Your task to perform on an android device: turn notification dots on Image 0: 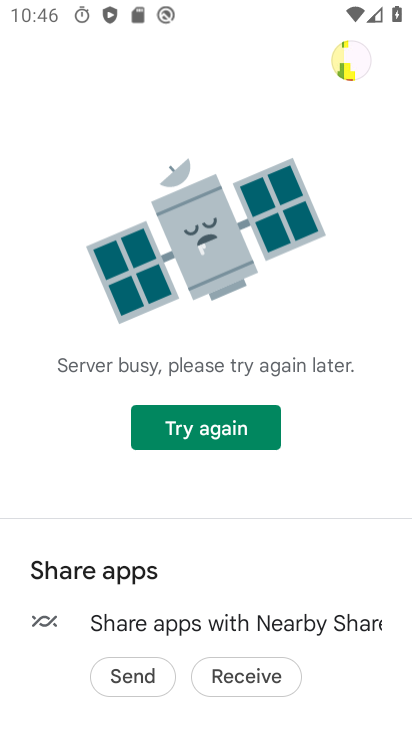
Step 0: press back button
Your task to perform on an android device: turn notification dots on Image 1: 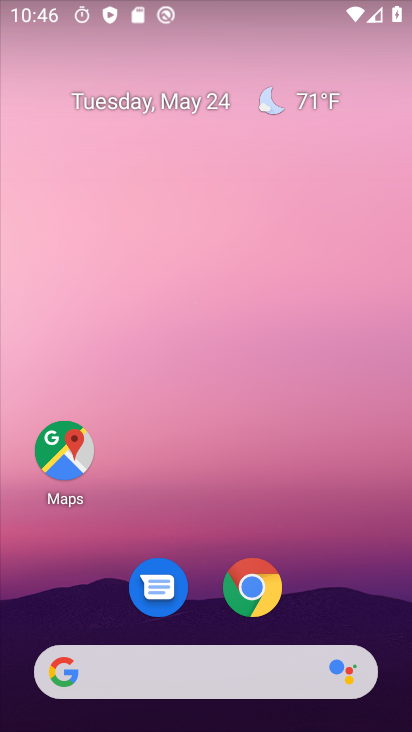
Step 1: drag from (312, 703) to (226, 156)
Your task to perform on an android device: turn notification dots on Image 2: 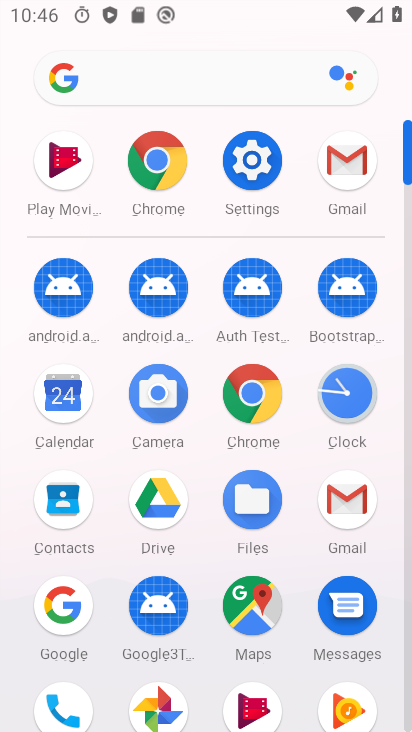
Step 2: click (243, 151)
Your task to perform on an android device: turn notification dots on Image 3: 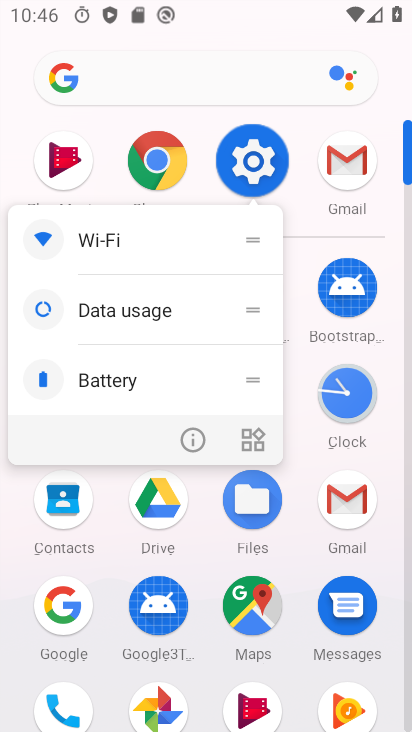
Step 3: click (251, 154)
Your task to perform on an android device: turn notification dots on Image 4: 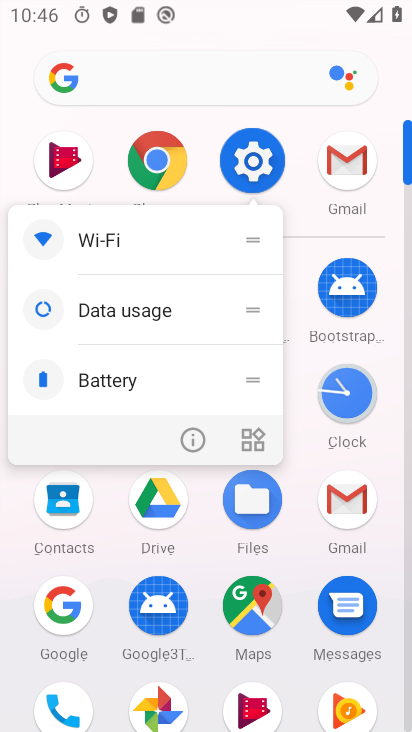
Step 4: click (253, 153)
Your task to perform on an android device: turn notification dots on Image 5: 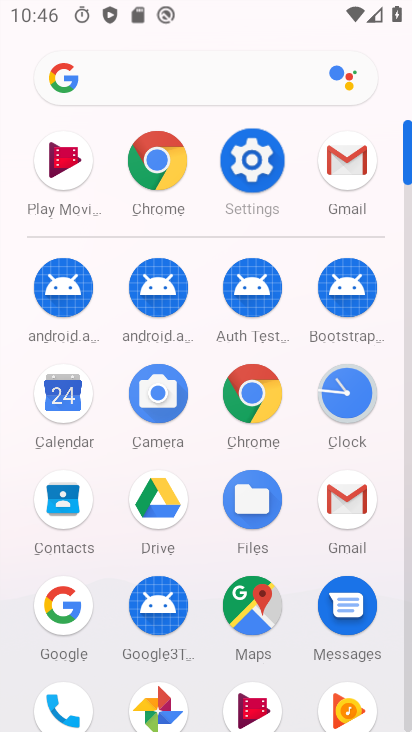
Step 5: click (257, 154)
Your task to perform on an android device: turn notification dots on Image 6: 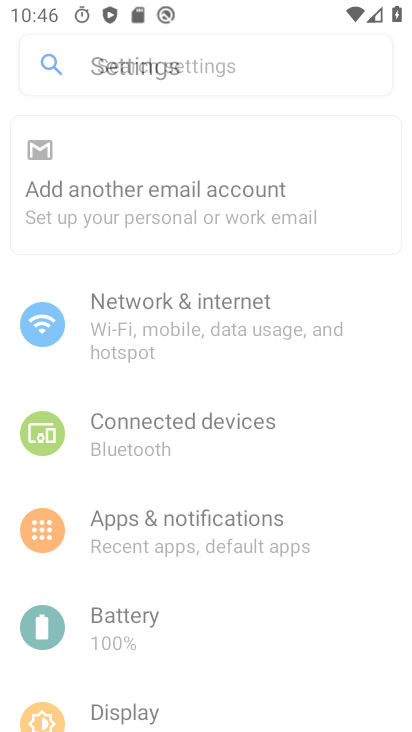
Step 6: click (257, 154)
Your task to perform on an android device: turn notification dots on Image 7: 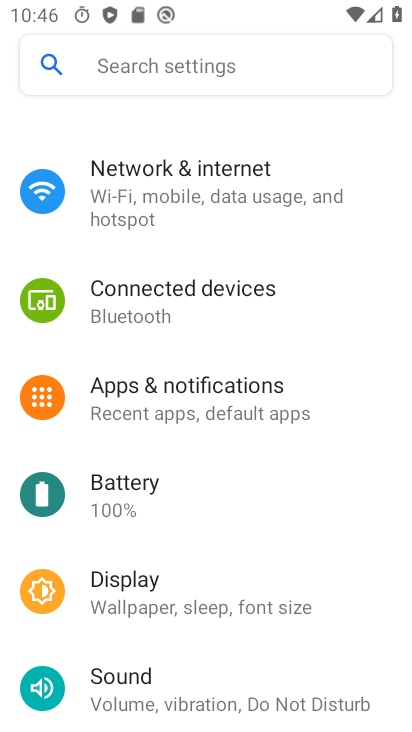
Step 7: click (257, 154)
Your task to perform on an android device: turn notification dots on Image 8: 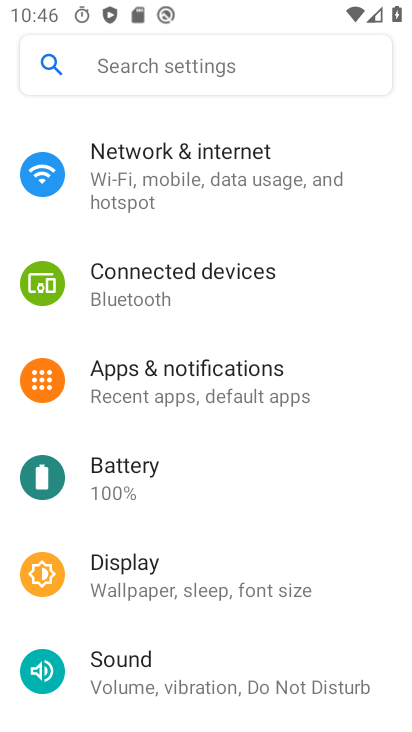
Step 8: click (257, 154)
Your task to perform on an android device: turn notification dots on Image 9: 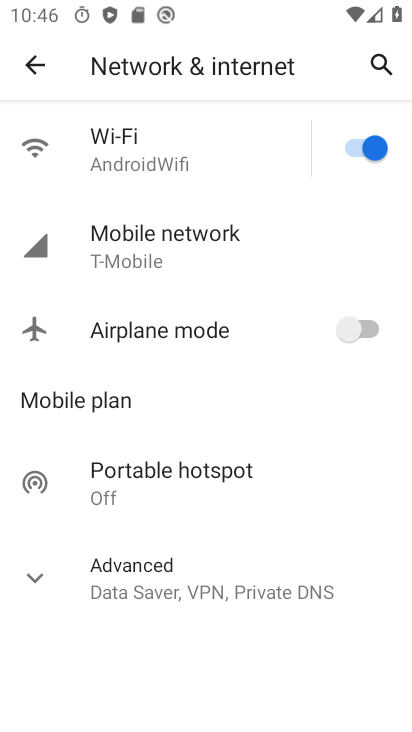
Step 9: click (30, 70)
Your task to perform on an android device: turn notification dots on Image 10: 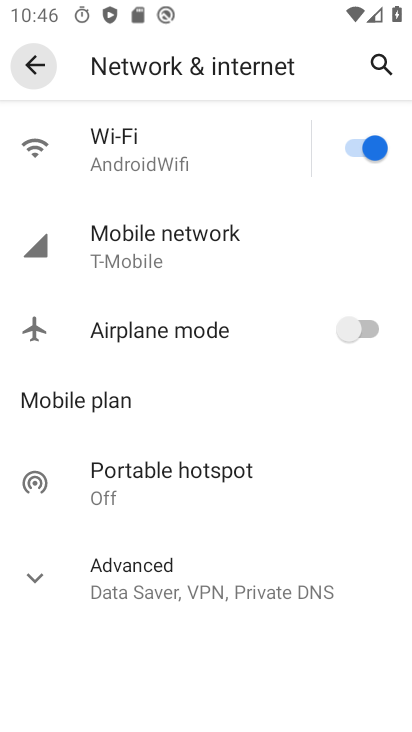
Step 10: click (29, 69)
Your task to perform on an android device: turn notification dots on Image 11: 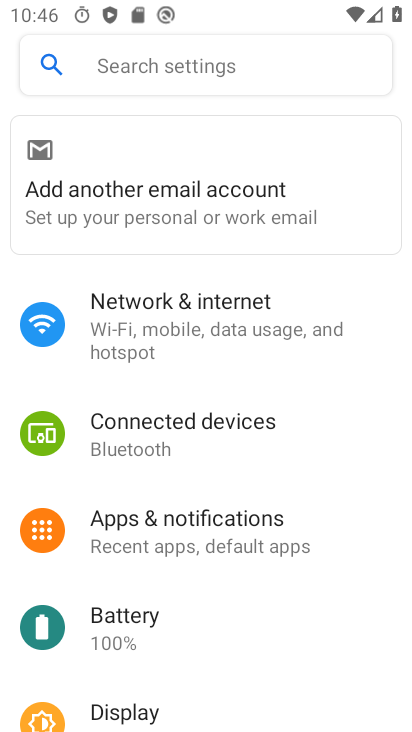
Step 11: drag from (224, 565) to (245, 252)
Your task to perform on an android device: turn notification dots on Image 12: 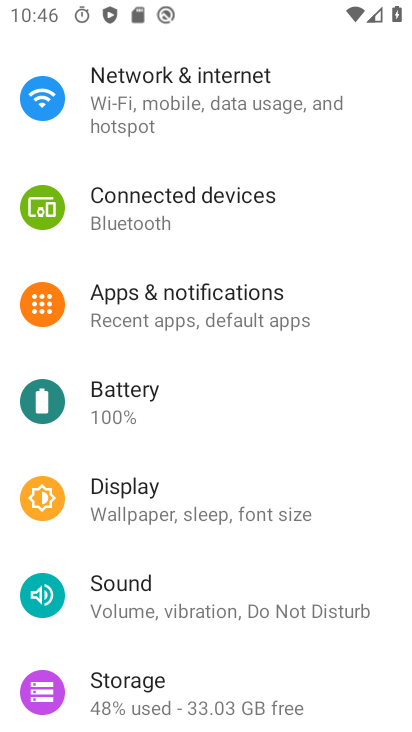
Step 12: click (166, 312)
Your task to perform on an android device: turn notification dots on Image 13: 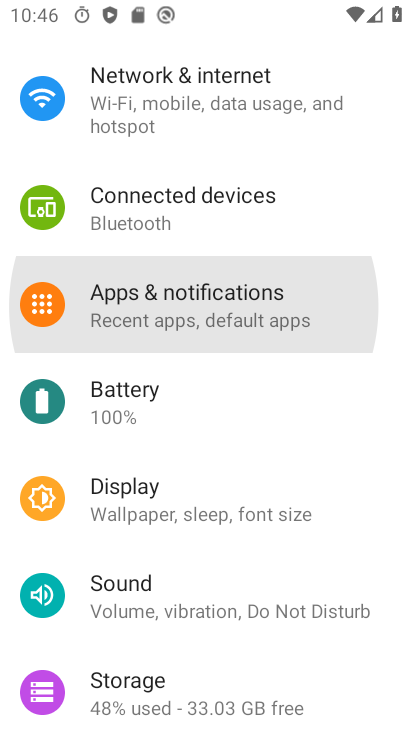
Step 13: click (167, 310)
Your task to perform on an android device: turn notification dots on Image 14: 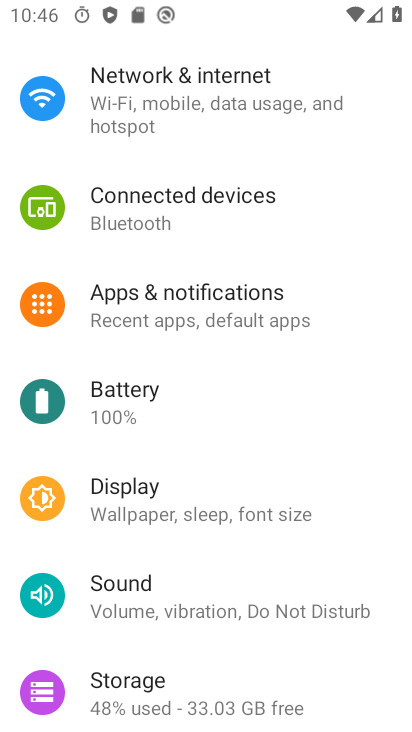
Step 14: click (173, 308)
Your task to perform on an android device: turn notification dots on Image 15: 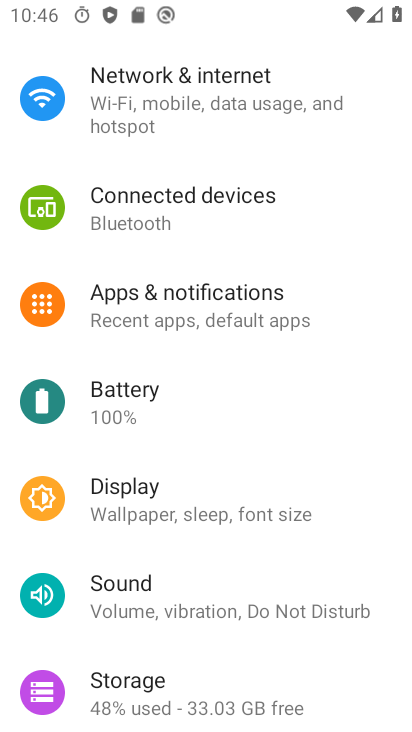
Step 15: click (173, 307)
Your task to perform on an android device: turn notification dots on Image 16: 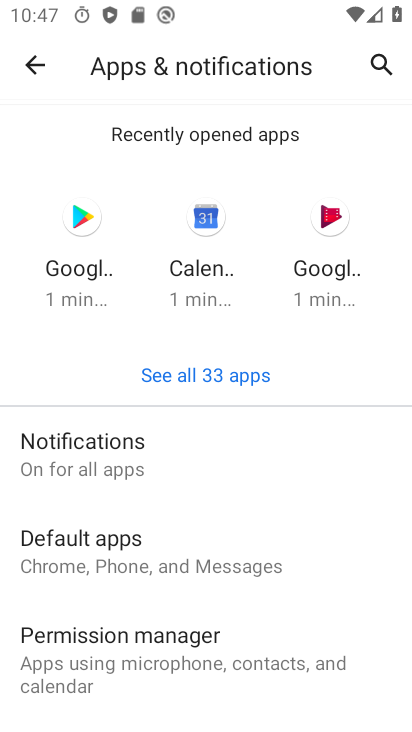
Step 16: click (68, 450)
Your task to perform on an android device: turn notification dots on Image 17: 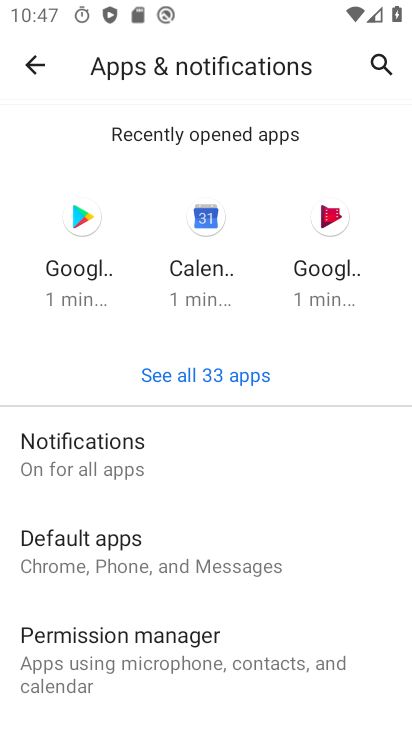
Step 17: click (68, 450)
Your task to perform on an android device: turn notification dots on Image 18: 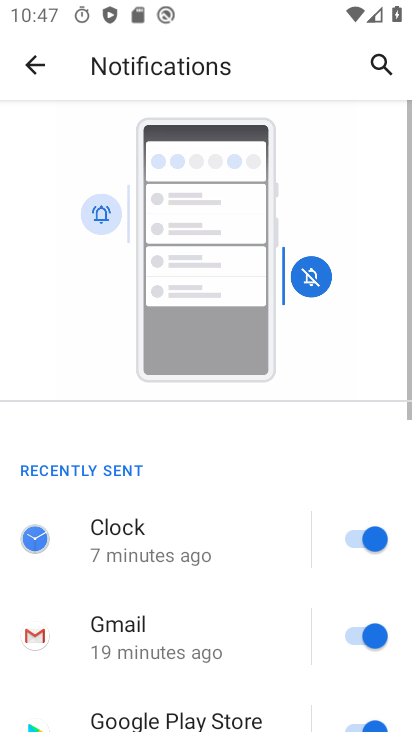
Step 18: click (95, 462)
Your task to perform on an android device: turn notification dots on Image 19: 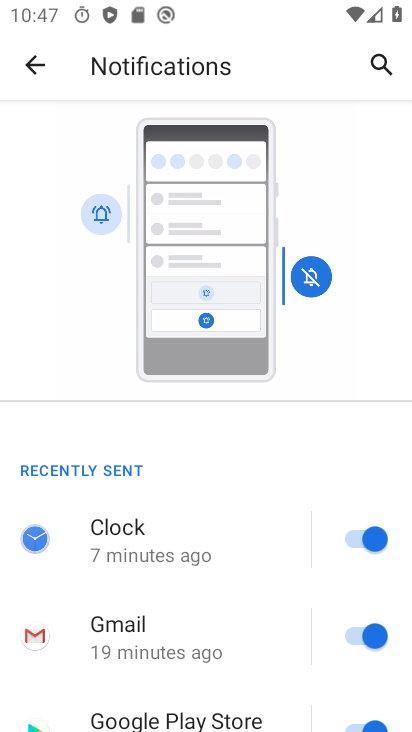
Step 19: drag from (162, 501) to (182, 226)
Your task to perform on an android device: turn notification dots on Image 20: 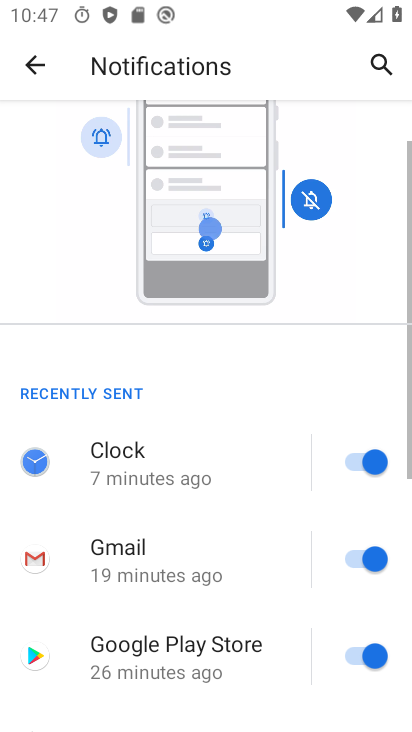
Step 20: drag from (229, 467) to (224, 175)
Your task to perform on an android device: turn notification dots on Image 21: 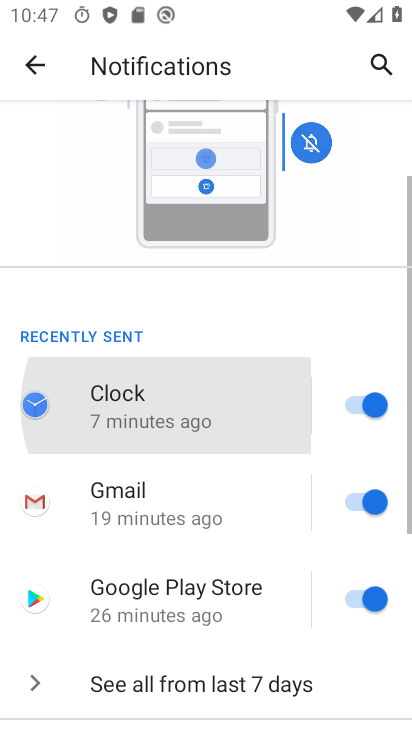
Step 21: drag from (140, 509) to (156, 196)
Your task to perform on an android device: turn notification dots on Image 22: 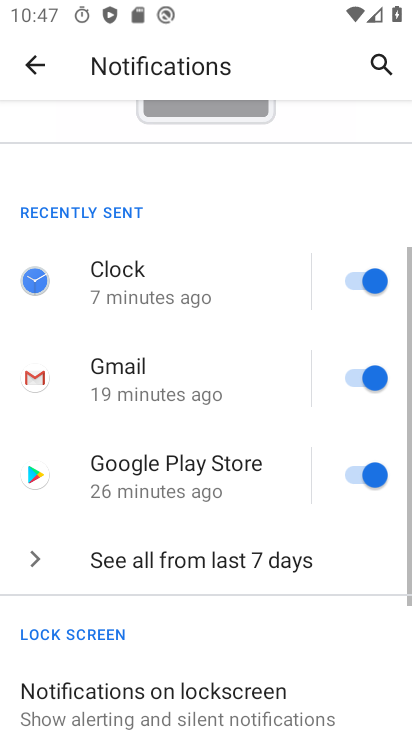
Step 22: drag from (199, 528) to (198, 145)
Your task to perform on an android device: turn notification dots on Image 23: 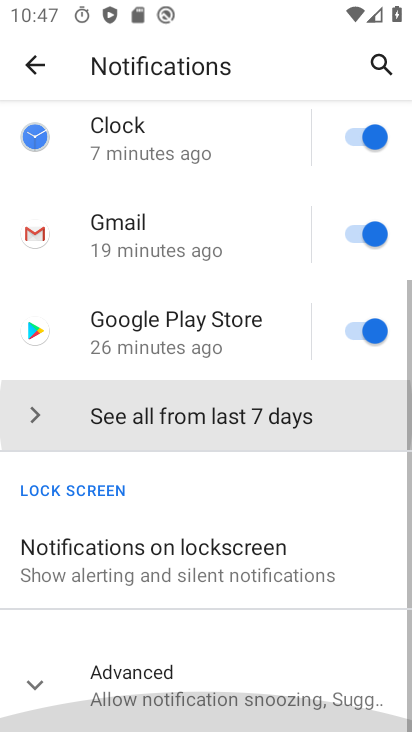
Step 23: drag from (185, 492) to (214, 65)
Your task to perform on an android device: turn notification dots on Image 24: 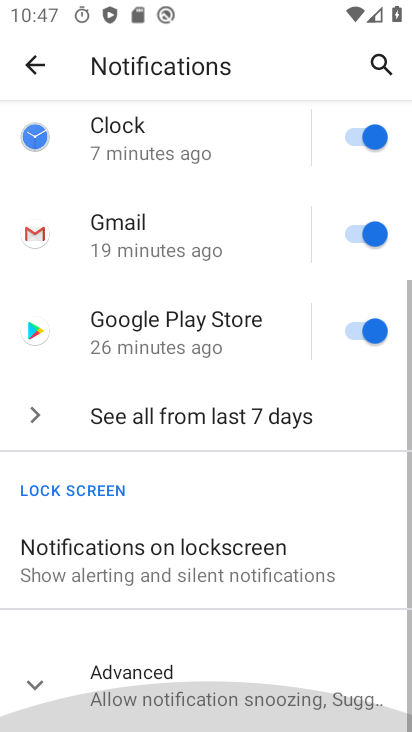
Step 24: drag from (213, 568) to (238, 124)
Your task to perform on an android device: turn notification dots on Image 25: 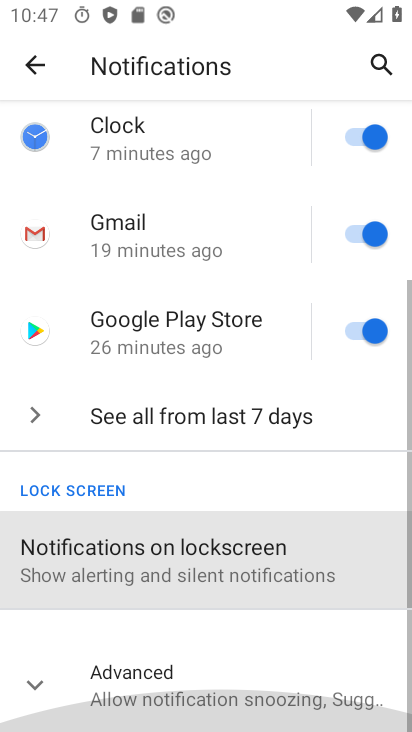
Step 25: drag from (238, 557) to (274, 178)
Your task to perform on an android device: turn notification dots on Image 26: 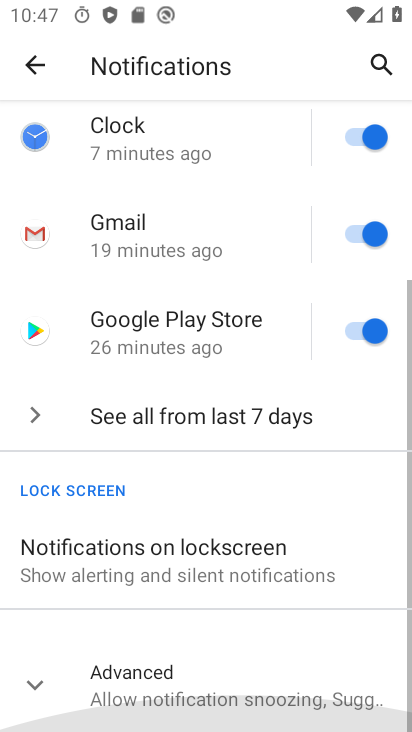
Step 26: drag from (278, 491) to (278, 97)
Your task to perform on an android device: turn notification dots on Image 27: 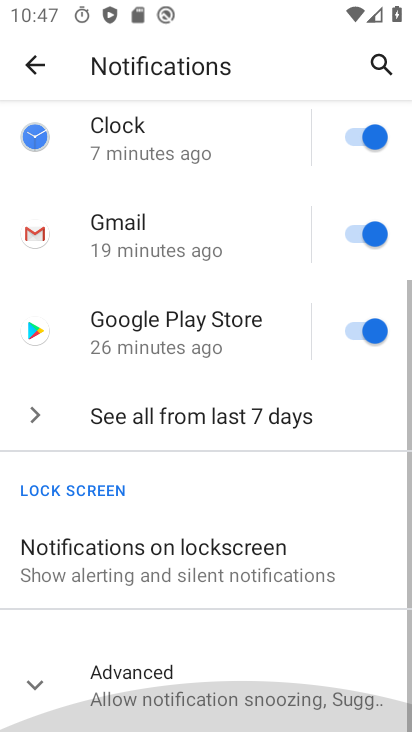
Step 27: drag from (255, 543) to (243, 165)
Your task to perform on an android device: turn notification dots on Image 28: 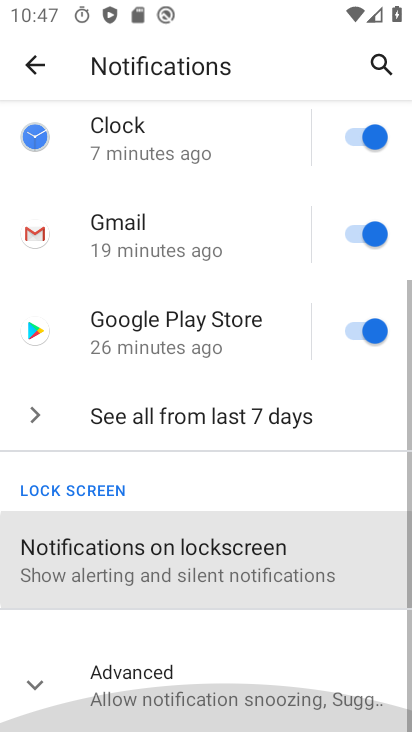
Step 28: drag from (234, 453) to (229, 80)
Your task to perform on an android device: turn notification dots on Image 29: 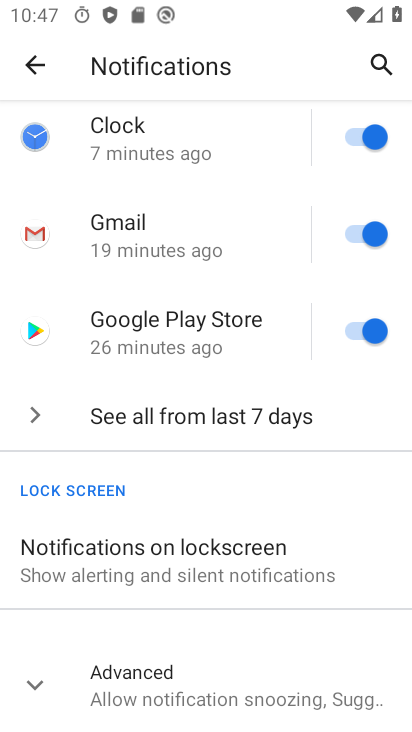
Step 29: click (149, 677)
Your task to perform on an android device: turn notification dots on Image 30: 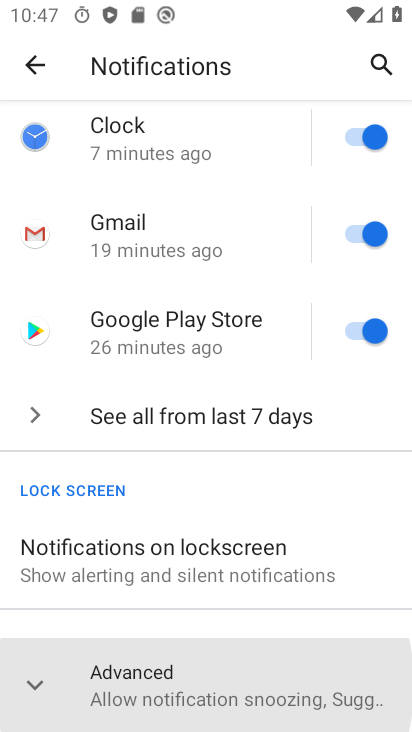
Step 30: click (149, 677)
Your task to perform on an android device: turn notification dots on Image 31: 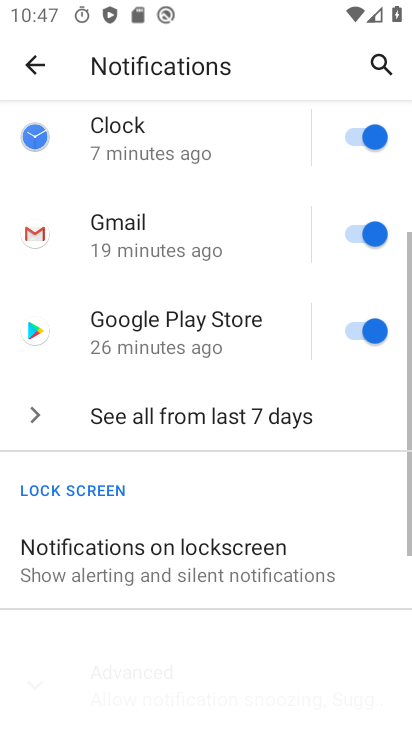
Step 31: click (149, 676)
Your task to perform on an android device: turn notification dots on Image 32: 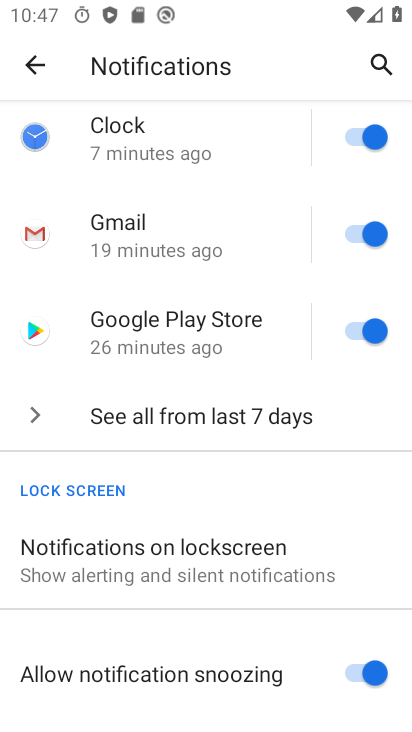
Step 32: drag from (207, 541) to (219, 157)
Your task to perform on an android device: turn notification dots on Image 33: 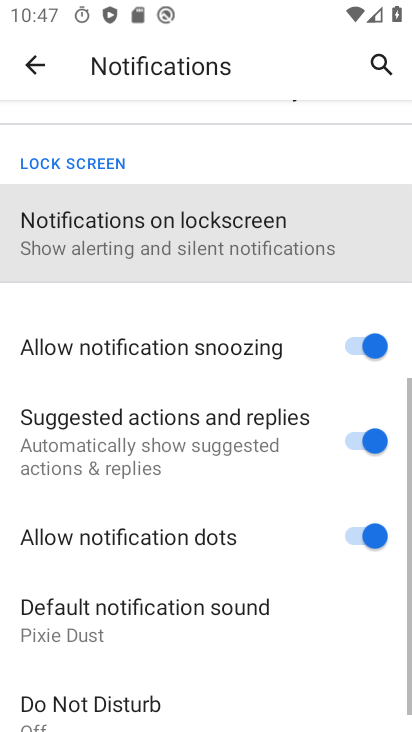
Step 33: drag from (192, 479) to (227, 168)
Your task to perform on an android device: turn notification dots on Image 34: 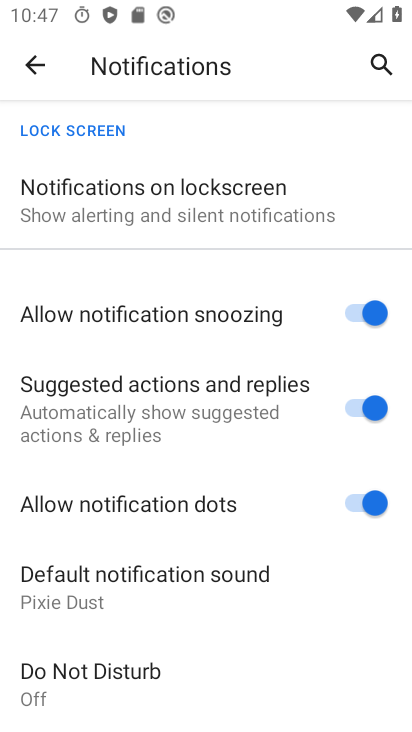
Step 34: click (359, 506)
Your task to perform on an android device: turn notification dots on Image 35: 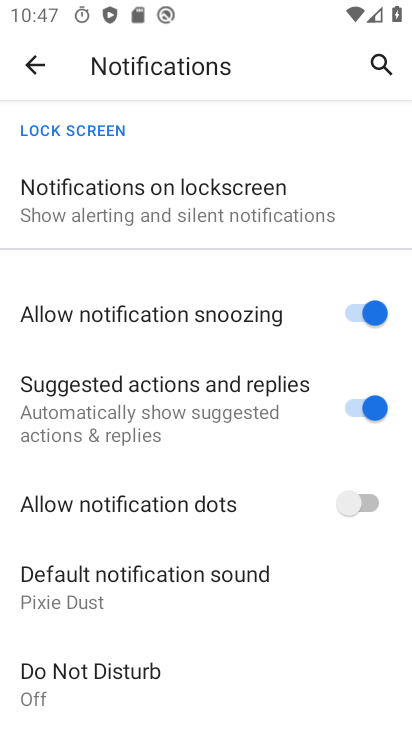
Step 35: click (349, 505)
Your task to perform on an android device: turn notification dots on Image 36: 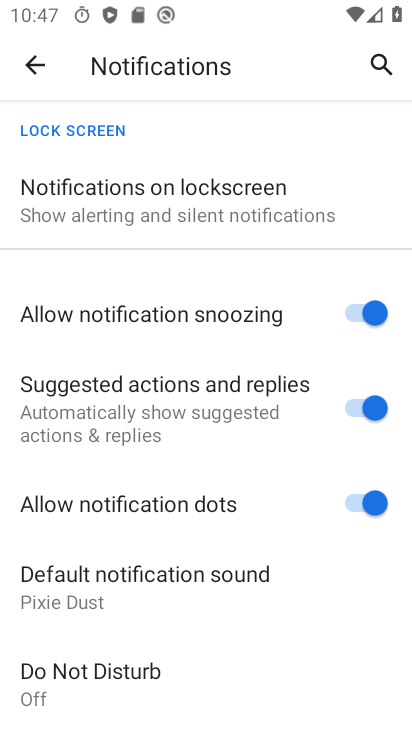
Step 36: task complete